Your task to perform on an android device: Play the last video I watched on Youtube Image 0: 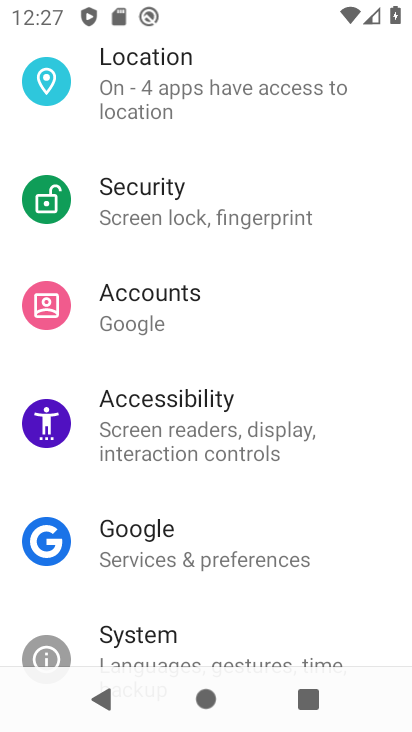
Step 0: press home button
Your task to perform on an android device: Play the last video I watched on Youtube Image 1: 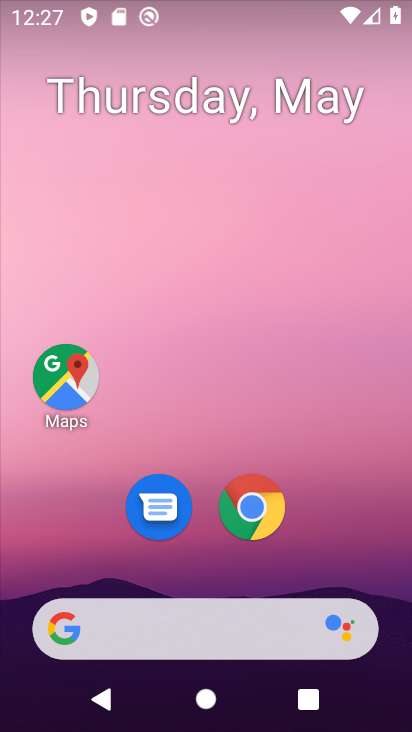
Step 1: drag from (199, 575) to (161, 305)
Your task to perform on an android device: Play the last video I watched on Youtube Image 2: 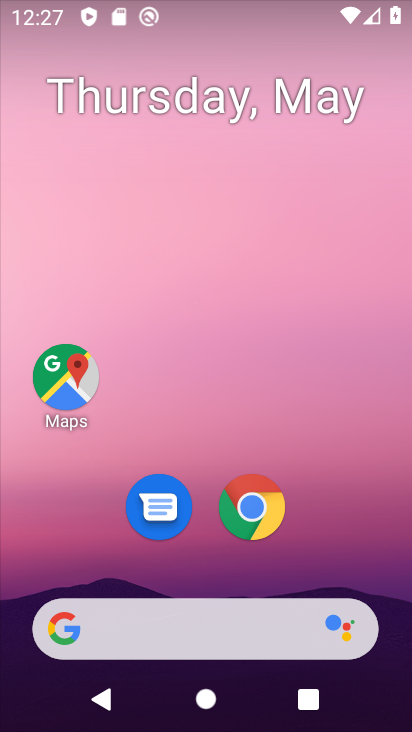
Step 2: drag from (208, 569) to (207, 41)
Your task to perform on an android device: Play the last video I watched on Youtube Image 3: 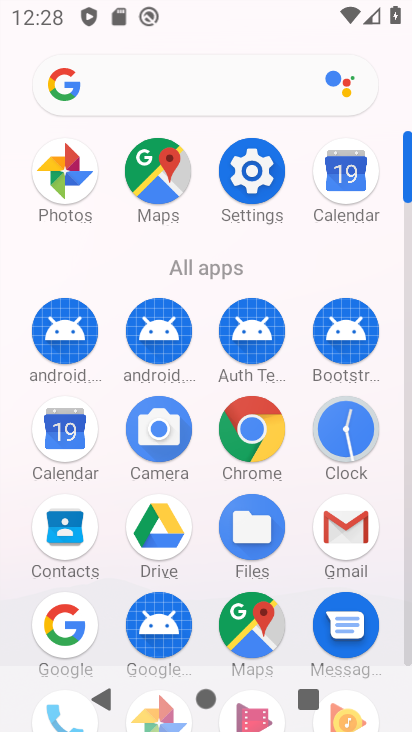
Step 3: drag from (238, 621) to (212, 233)
Your task to perform on an android device: Play the last video I watched on Youtube Image 4: 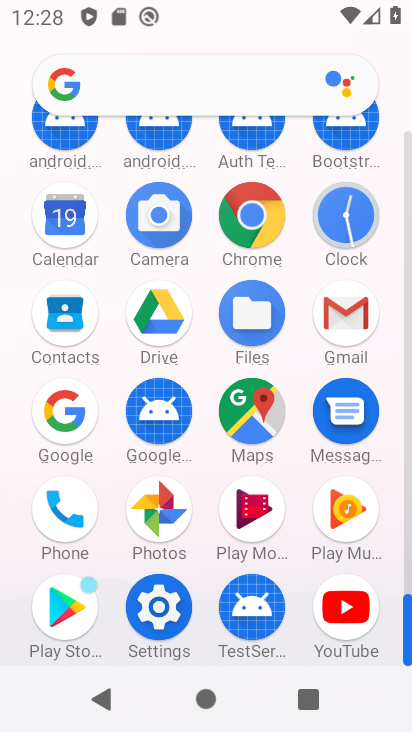
Step 4: click (343, 618)
Your task to perform on an android device: Play the last video I watched on Youtube Image 5: 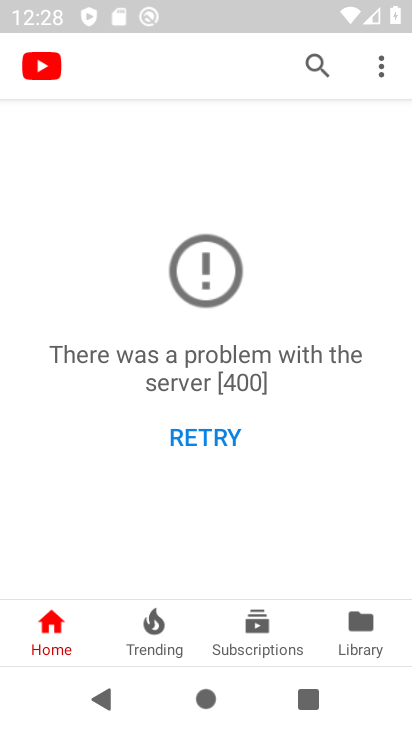
Step 5: click (343, 644)
Your task to perform on an android device: Play the last video I watched on Youtube Image 6: 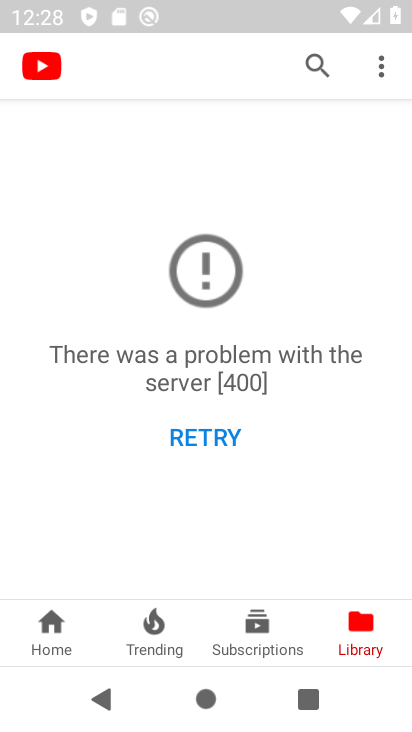
Step 6: click (357, 648)
Your task to perform on an android device: Play the last video I watched on Youtube Image 7: 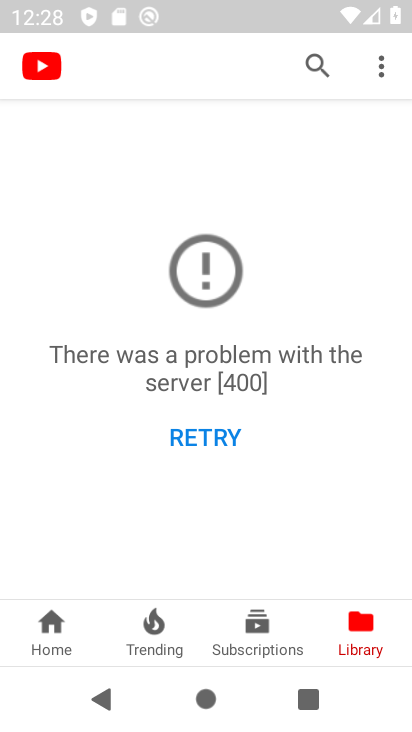
Step 7: task complete